Your task to perform on an android device: Search for "usb-c" on walmart.com, select the first entry, and add it to the cart. Image 0: 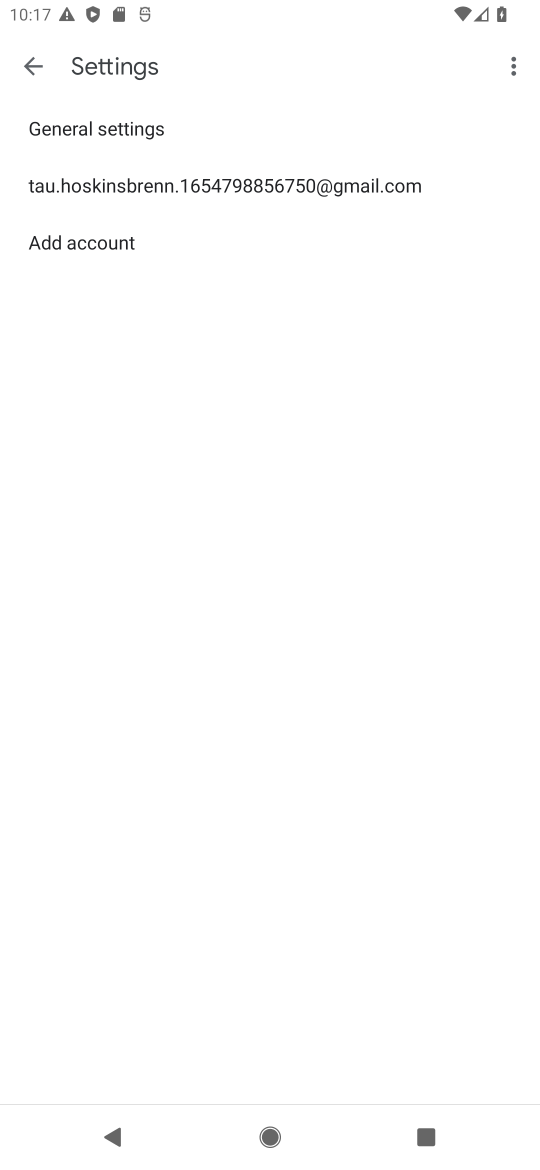
Step 0: press home button
Your task to perform on an android device: Search for "usb-c" on walmart.com, select the first entry, and add it to the cart. Image 1: 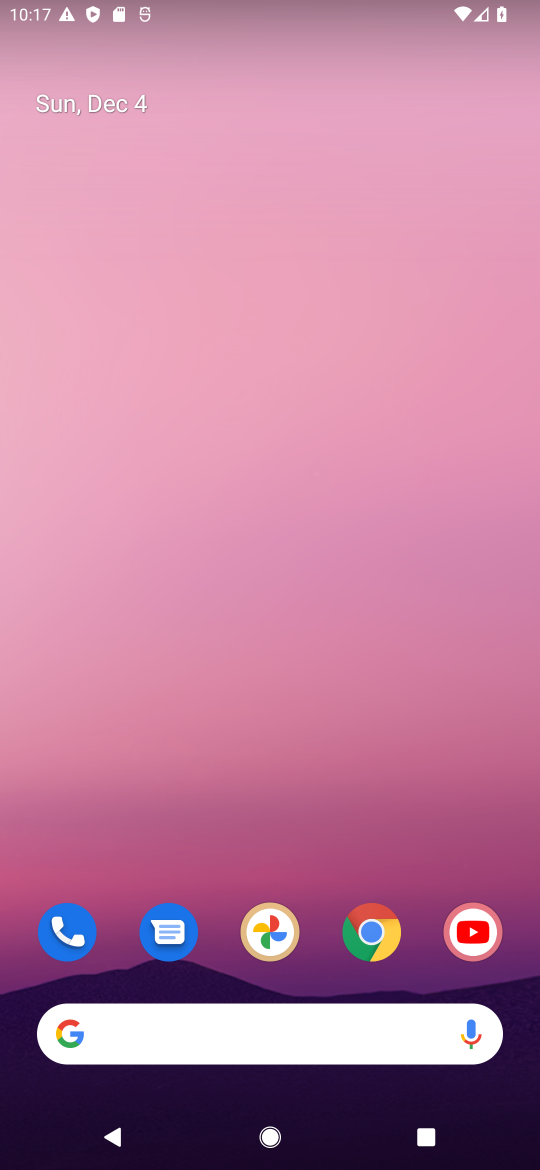
Step 1: click (373, 932)
Your task to perform on an android device: Search for "usb-c" on walmart.com, select the first entry, and add it to the cart. Image 2: 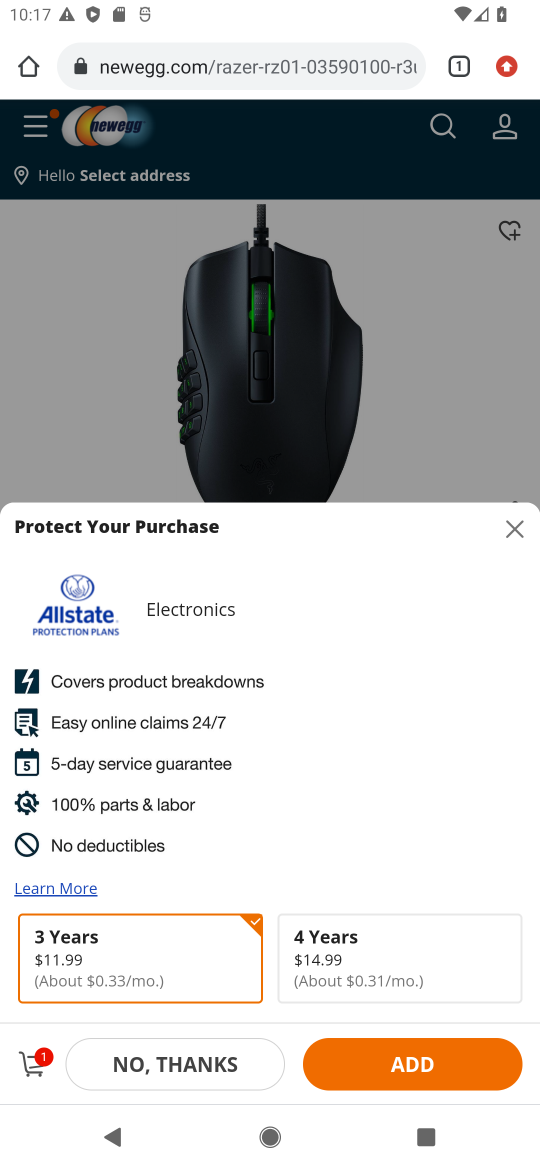
Step 2: click (199, 63)
Your task to perform on an android device: Search for "usb-c" on walmart.com, select the first entry, and add it to the cart. Image 3: 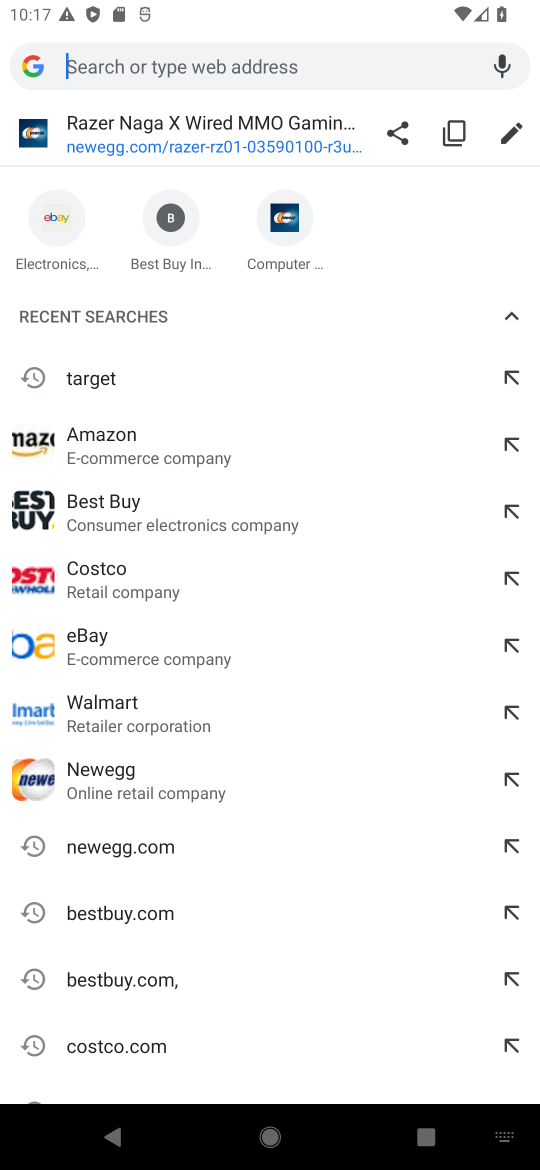
Step 3: click (115, 726)
Your task to perform on an android device: Search for "usb-c" on walmart.com, select the first entry, and add it to the cart. Image 4: 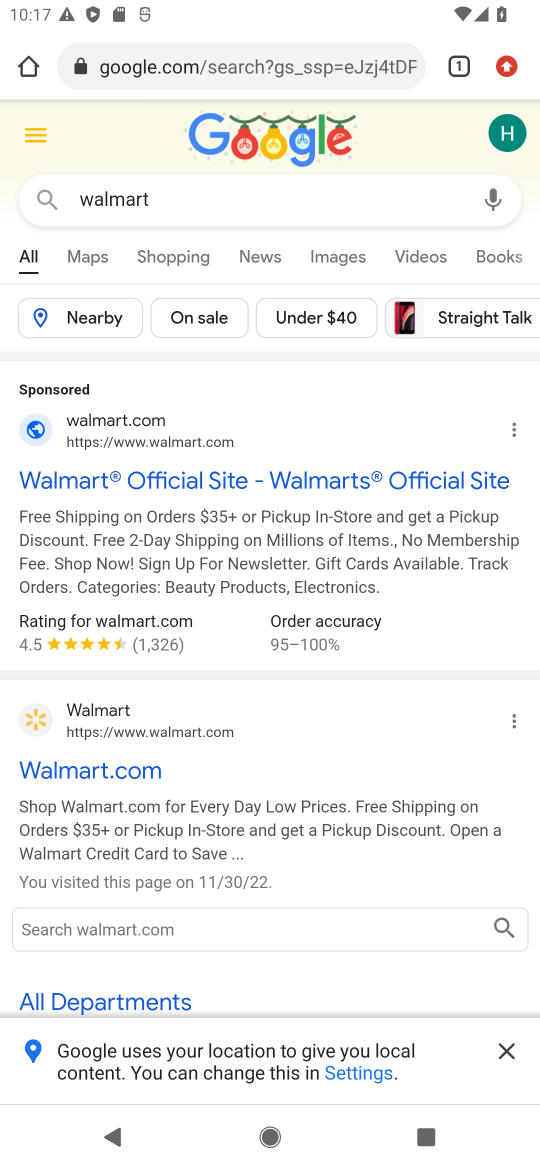
Step 4: click (211, 472)
Your task to perform on an android device: Search for "usb-c" on walmart.com, select the first entry, and add it to the cart. Image 5: 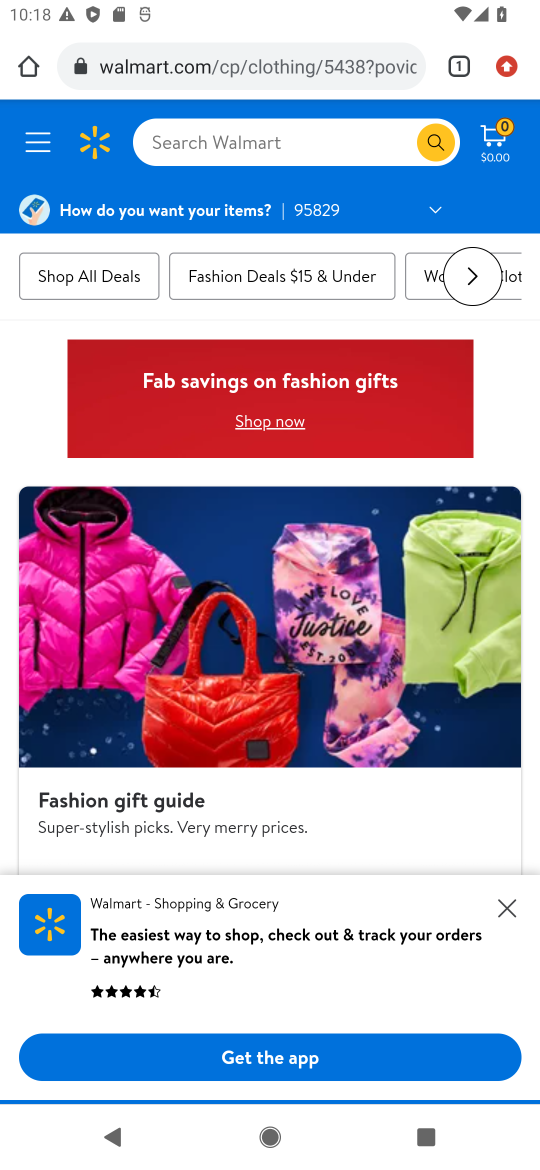
Step 5: click (505, 914)
Your task to perform on an android device: Search for "usb-c" on walmart.com, select the first entry, and add it to the cart. Image 6: 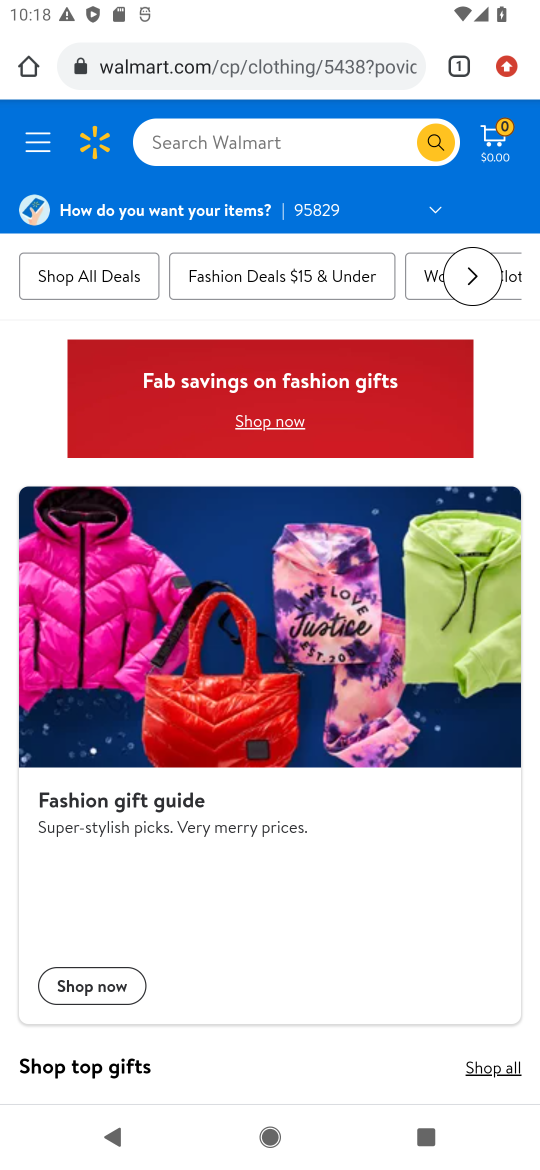
Step 6: click (319, 132)
Your task to perform on an android device: Search for "usb-c" on walmart.com, select the first entry, and add it to the cart. Image 7: 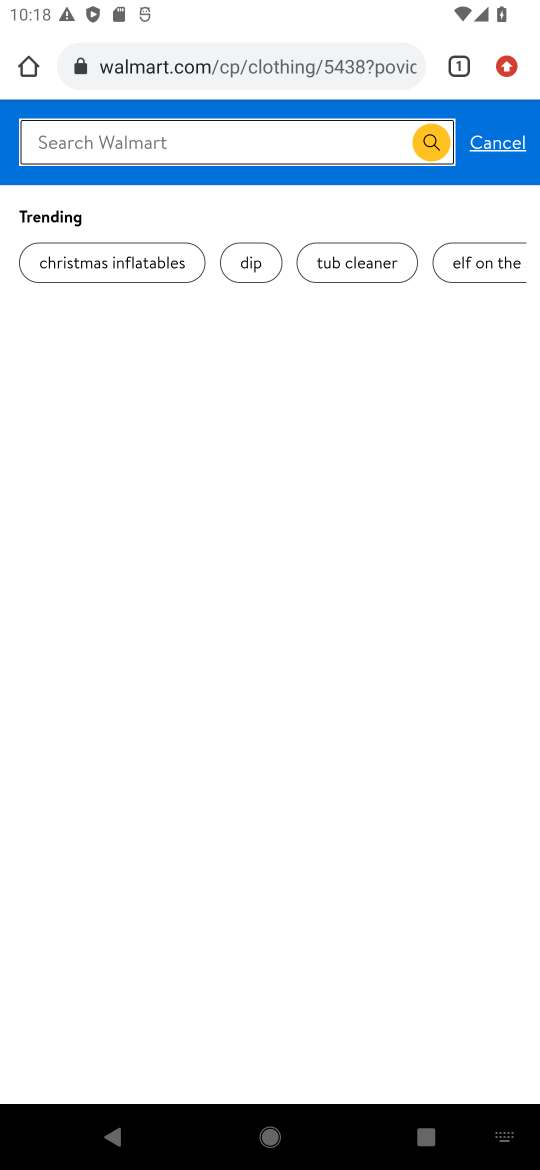
Step 7: type "usb-c"
Your task to perform on an android device: Search for "usb-c" on walmart.com, select the first entry, and add it to the cart. Image 8: 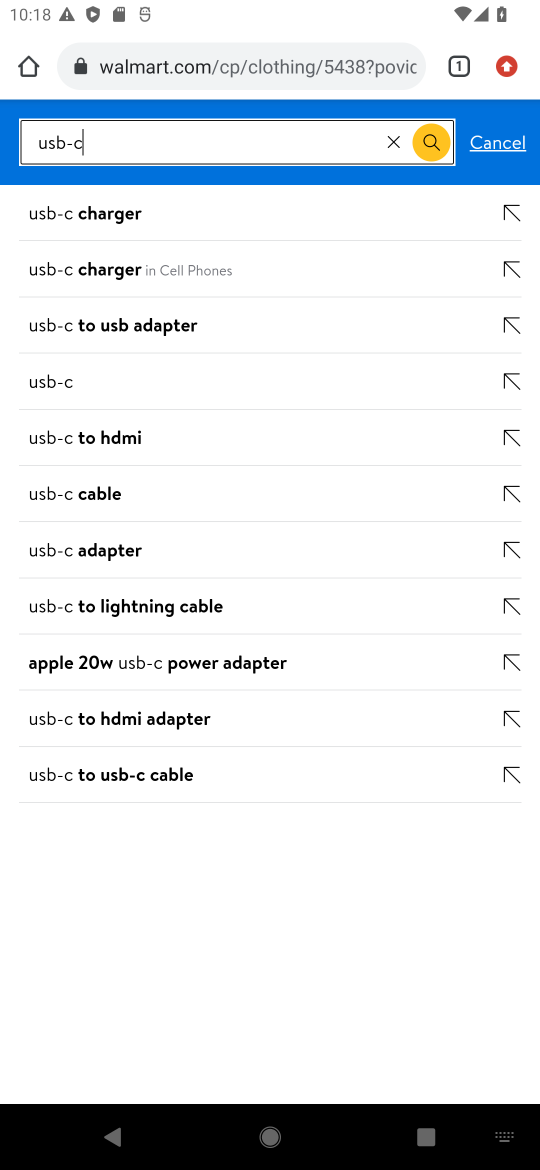
Step 8: click (106, 212)
Your task to perform on an android device: Search for "usb-c" on walmart.com, select the first entry, and add it to the cart. Image 9: 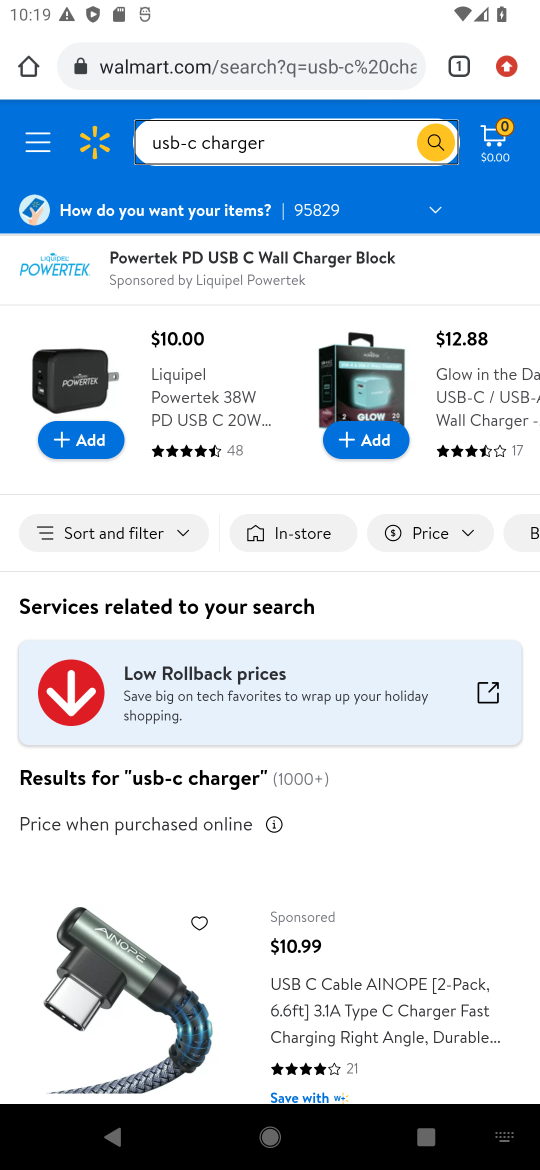
Step 9: click (135, 992)
Your task to perform on an android device: Search for "usb-c" on walmart.com, select the first entry, and add it to the cart. Image 10: 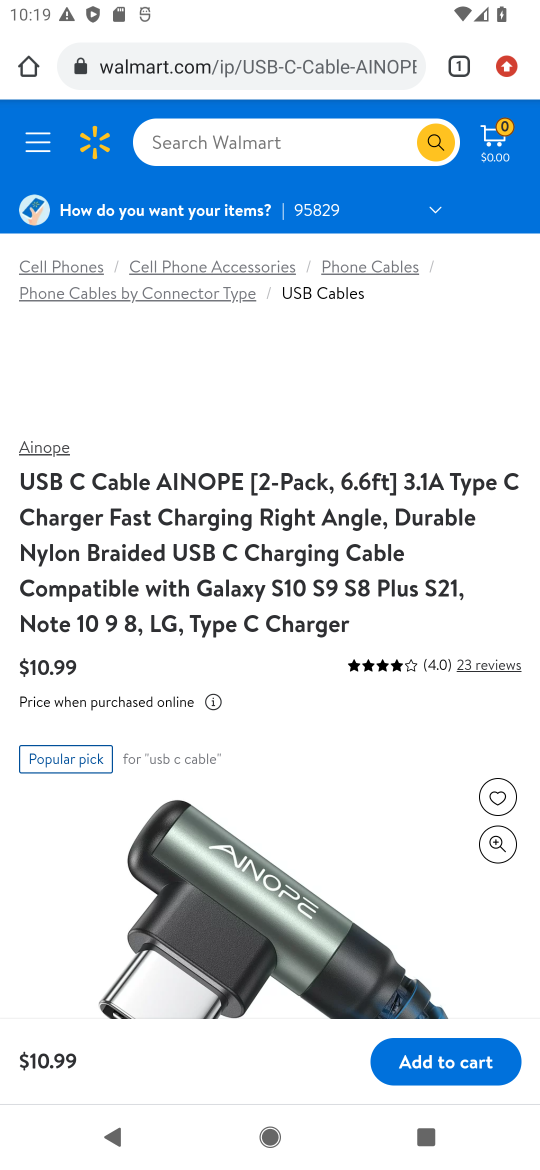
Step 10: click (458, 1060)
Your task to perform on an android device: Search for "usb-c" on walmart.com, select the first entry, and add it to the cart. Image 11: 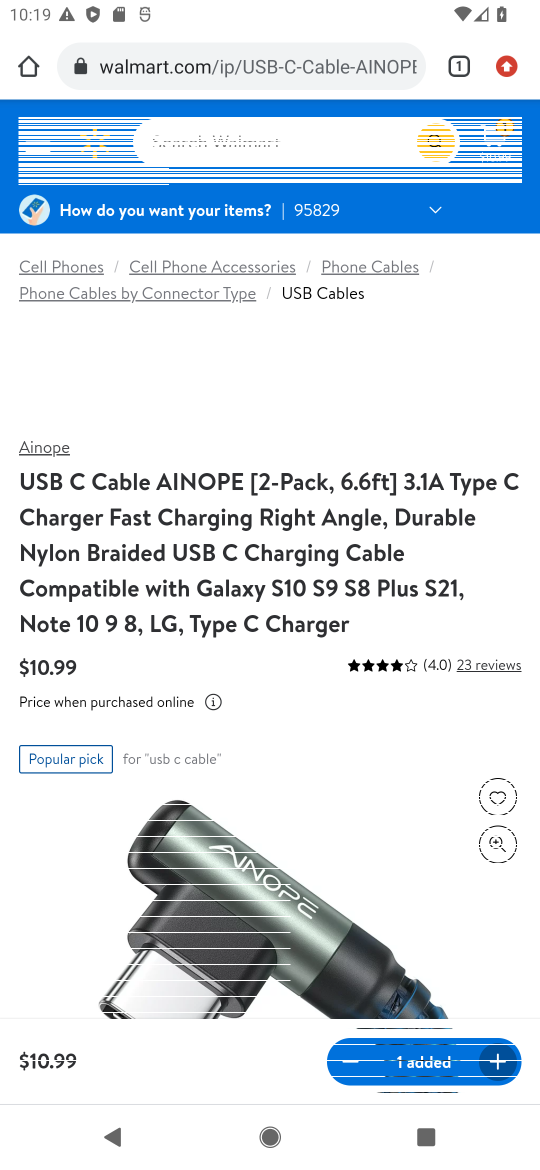
Step 11: task complete